Your task to perform on an android device: Go to network settings Image 0: 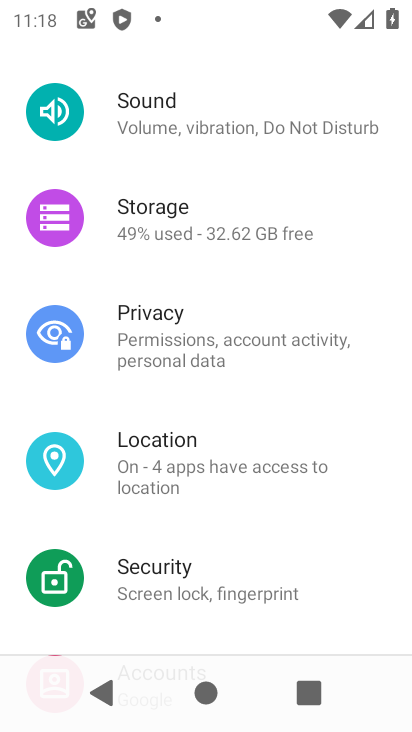
Step 0: drag from (218, 159) to (188, 615)
Your task to perform on an android device: Go to network settings Image 1: 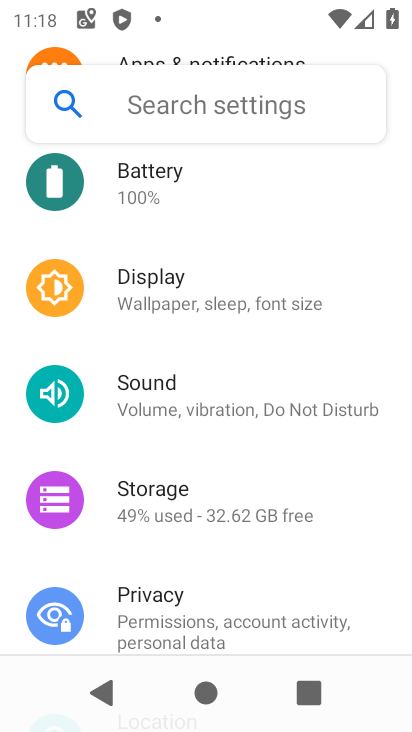
Step 1: drag from (263, 184) to (274, 507)
Your task to perform on an android device: Go to network settings Image 2: 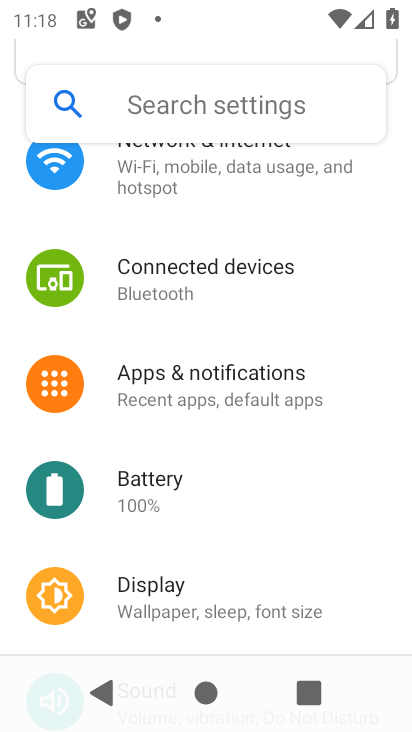
Step 2: drag from (238, 197) to (274, 515)
Your task to perform on an android device: Go to network settings Image 3: 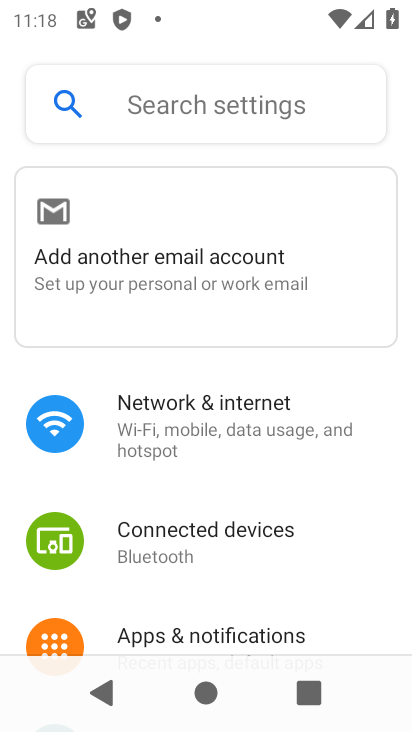
Step 3: click (259, 431)
Your task to perform on an android device: Go to network settings Image 4: 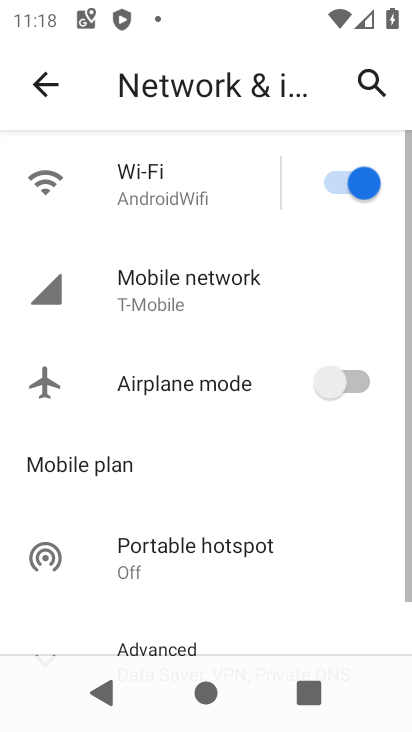
Step 4: task complete